Your task to perform on an android device: Go to eBay Image 0: 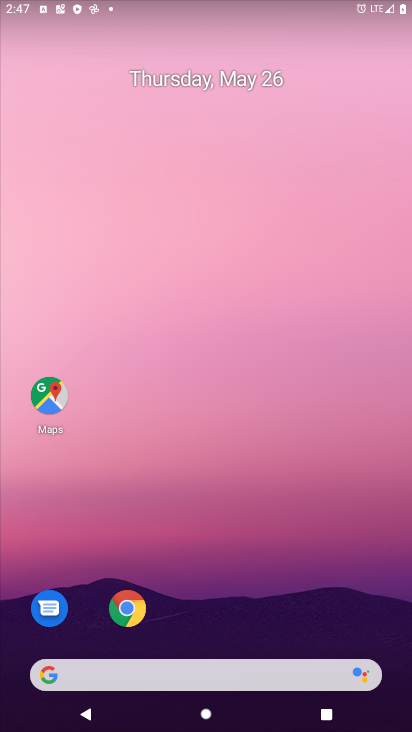
Step 0: click (129, 611)
Your task to perform on an android device: Go to eBay Image 1: 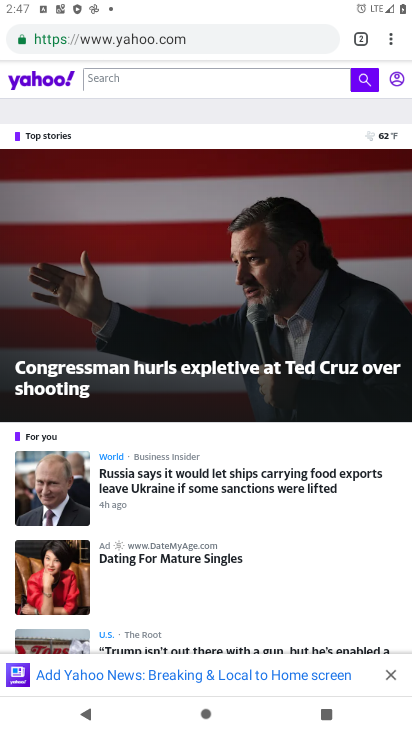
Step 1: click (244, 39)
Your task to perform on an android device: Go to eBay Image 2: 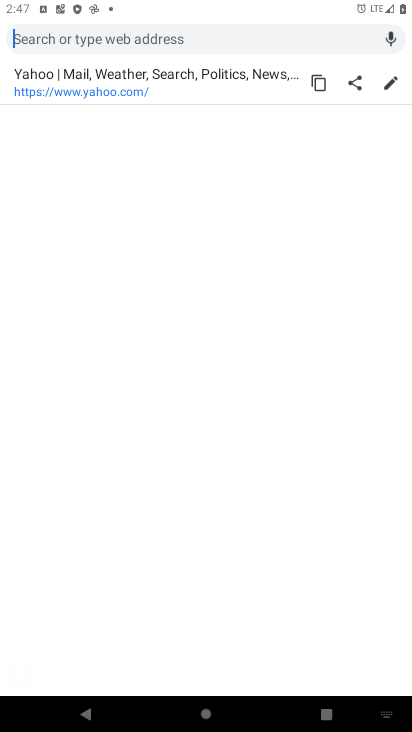
Step 2: type "ebay"
Your task to perform on an android device: Go to eBay Image 3: 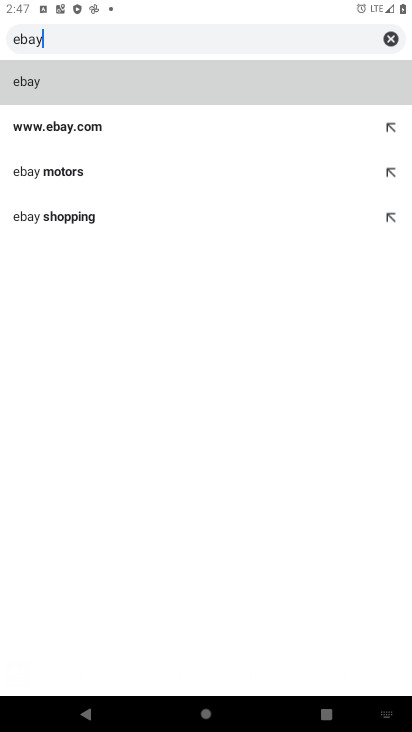
Step 3: click (44, 84)
Your task to perform on an android device: Go to eBay Image 4: 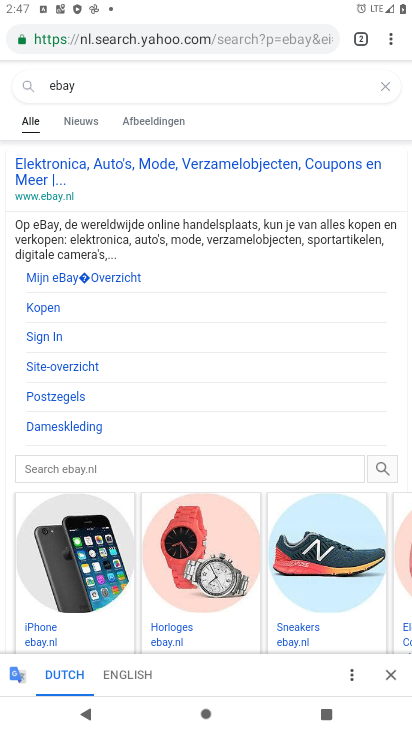
Step 4: click (55, 169)
Your task to perform on an android device: Go to eBay Image 5: 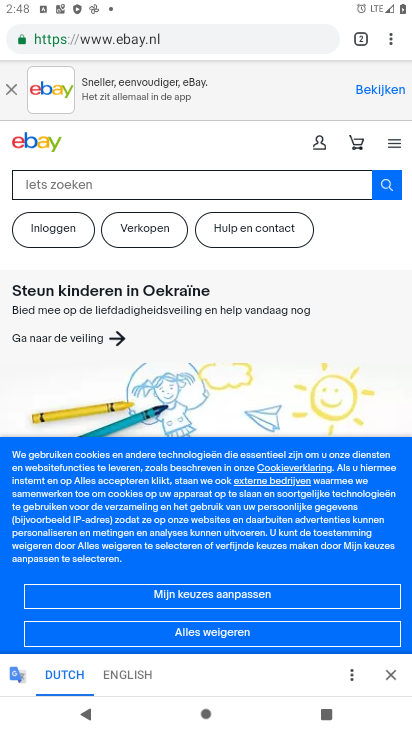
Step 5: task complete